Your task to perform on an android device: check data usage Image 0: 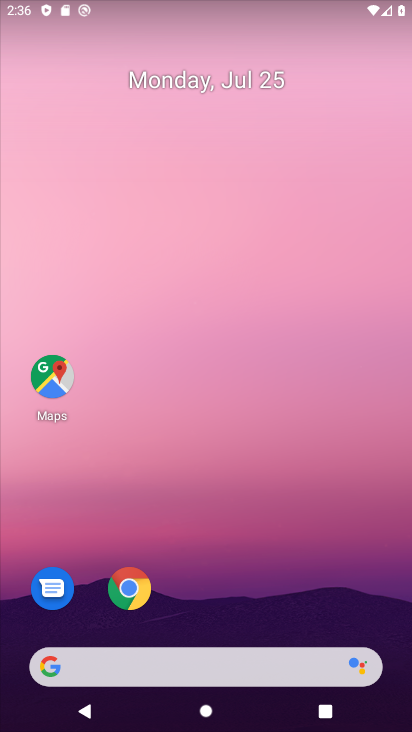
Step 0: drag from (179, 594) to (220, 176)
Your task to perform on an android device: check data usage Image 1: 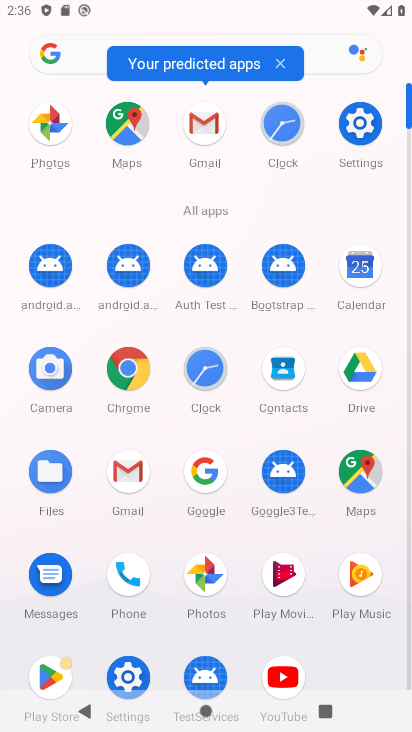
Step 1: click (352, 118)
Your task to perform on an android device: check data usage Image 2: 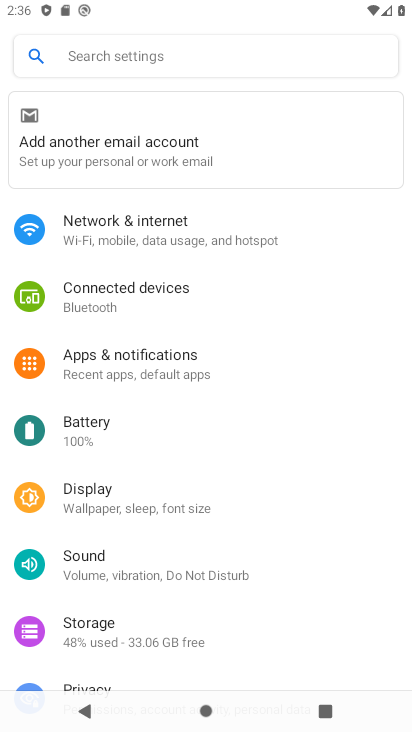
Step 2: click (183, 207)
Your task to perform on an android device: check data usage Image 3: 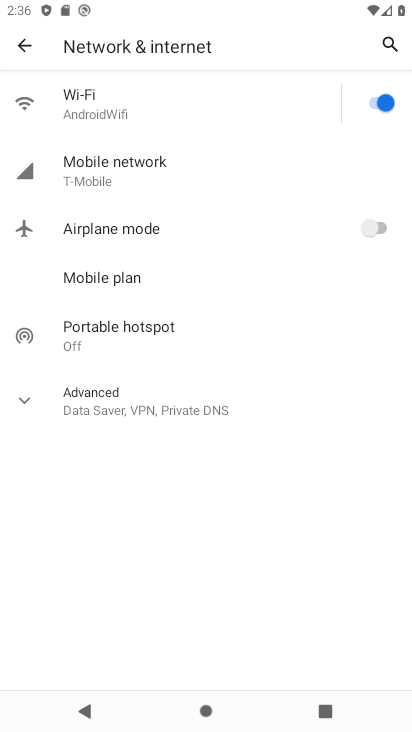
Step 3: click (134, 175)
Your task to perform on an android device: check data usage Image 4: 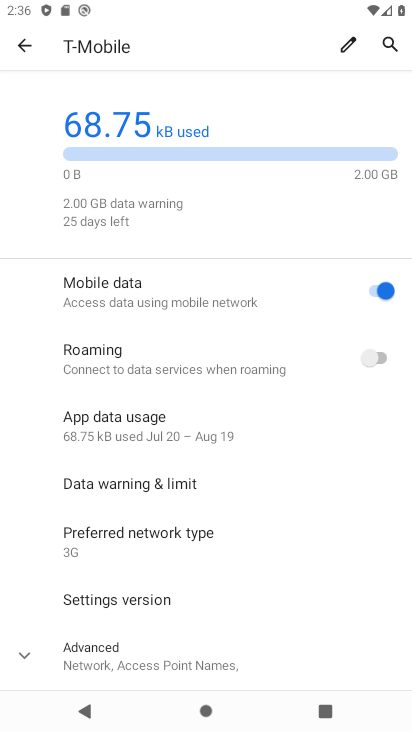
Step 4: click (143, 413)
Your task to perform on an android device: check data usage Image 5: 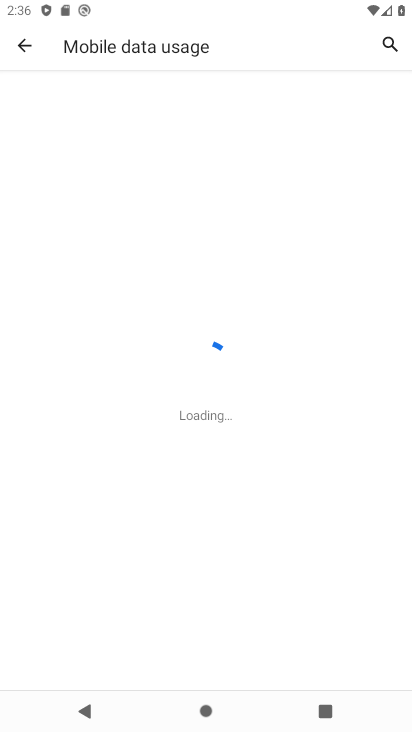
Step 5: task complete